Your task to perform on an android device: check the backup settings in the google photos Image 0: 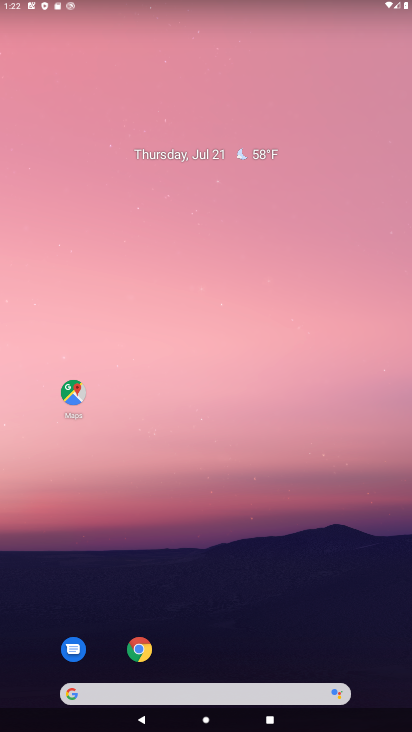
Step 0: drag from (356, 644) to (334, 56)
Your task to perform on an android device: check the backup settings in the google photos Image 1: 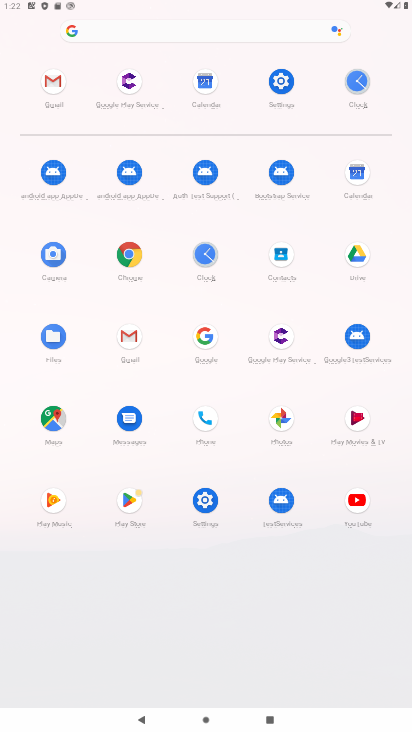
Step 1: click (283, 411)
Your task to perform on an android device: check the backup settings in the google photos Image 2: 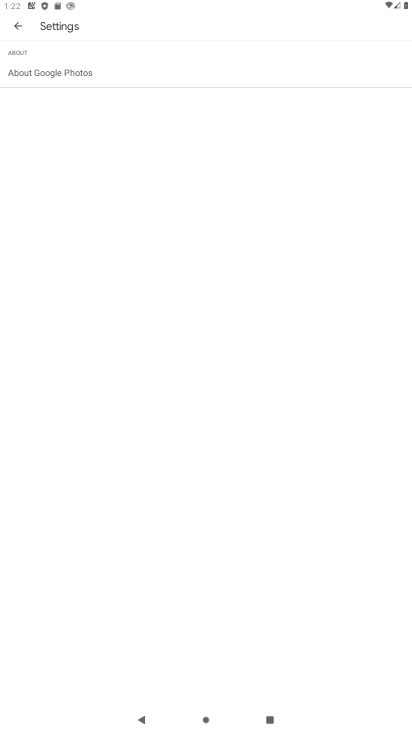
Step 2: task complete